Your task to perform on an android device: Open wifi settings Image 0: 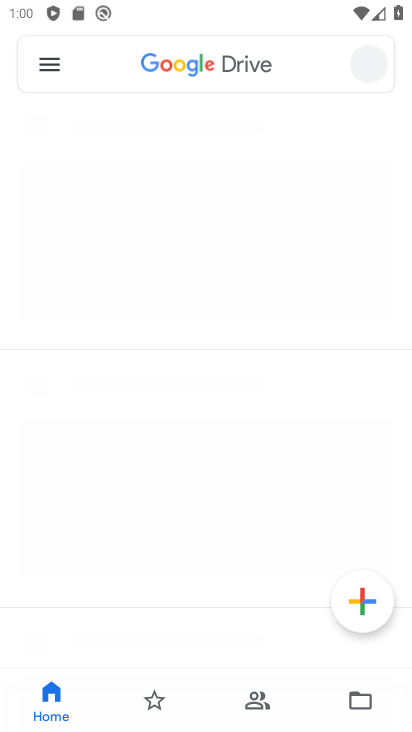
Step 0: drag from (205, 625) to (200, 170)
Your task to perform on an android device: Open wifi settings Image 1: 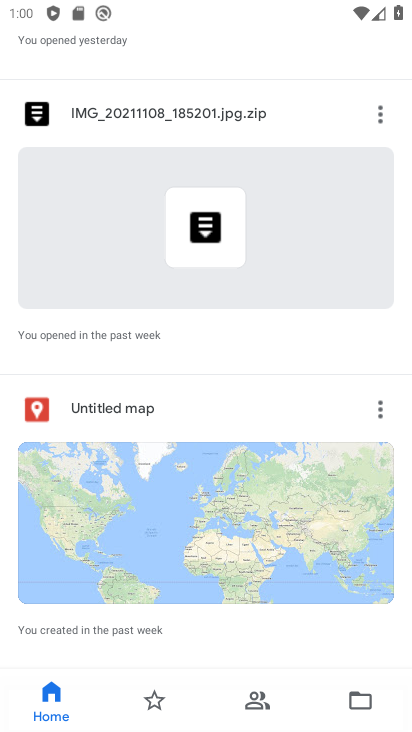
Step 1: task complete